Your task to perform on an android device: What's the weather going to be tomorrow? Image 0: 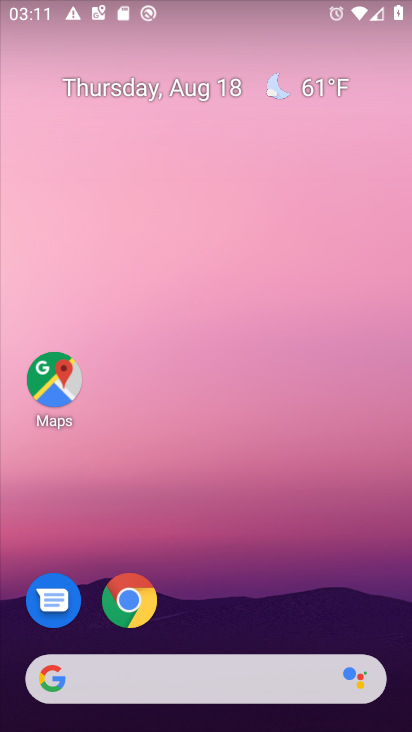
Step 0: press home button
Your task to perform on an android device: What's the weather going to be tomorrow? Image 1: 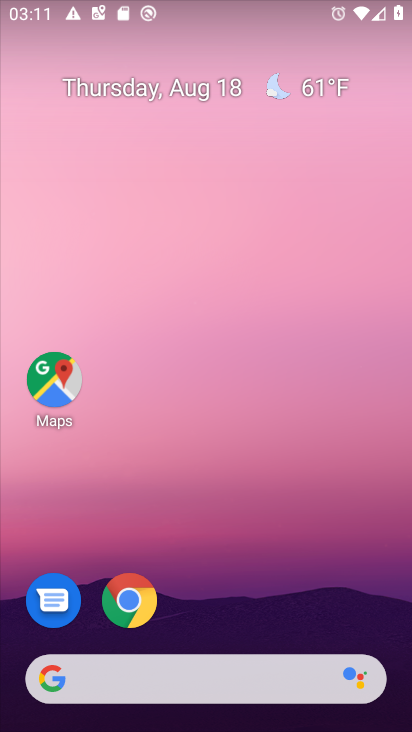
Step 1: click (43, 675)
Your task to perform on an android device: What's the weather going to be tomorrow? Image 2: 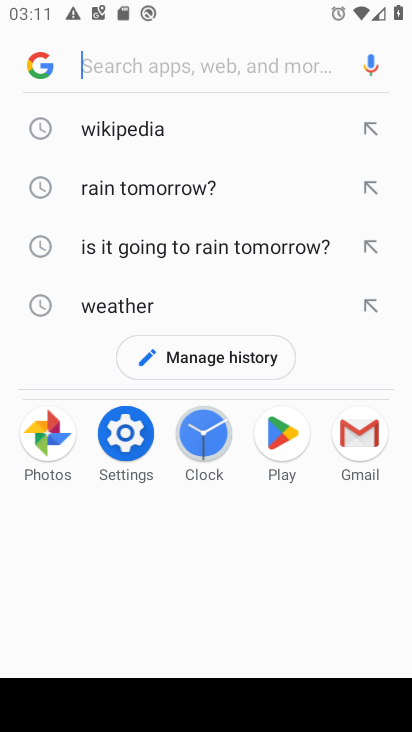
Step 2: type "weather going to be tomorrow?"
Your task to perform on an android device: What's the weather going to be tomorrow? Image 3: 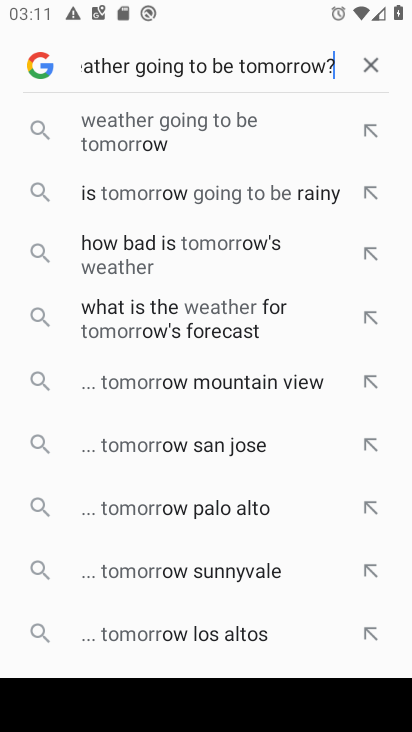
Step 3: press enter
Your task to perform on an android device: What's the weather going to be tomorrow? Image 4: 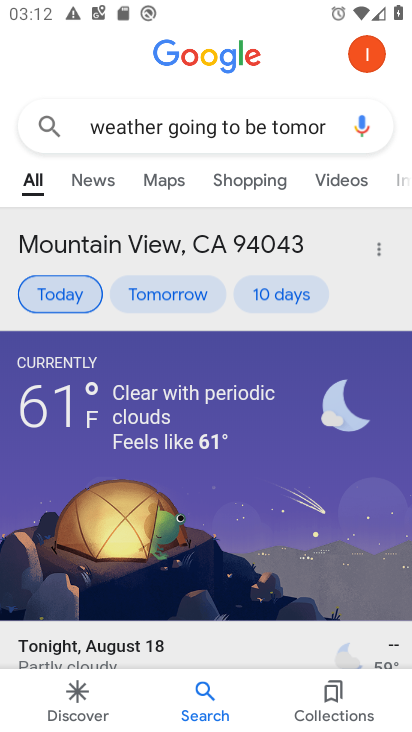
Step 4: task complete